Your task to perform on an android device: clear all cookies in the chrome app Image 0: 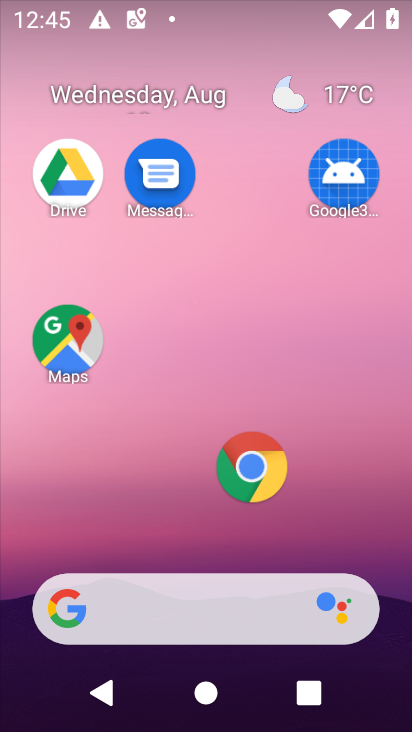
Step 0: click (263, 463)
Your task to perform on an android device: clear all cookies in the chrome app Image 1: 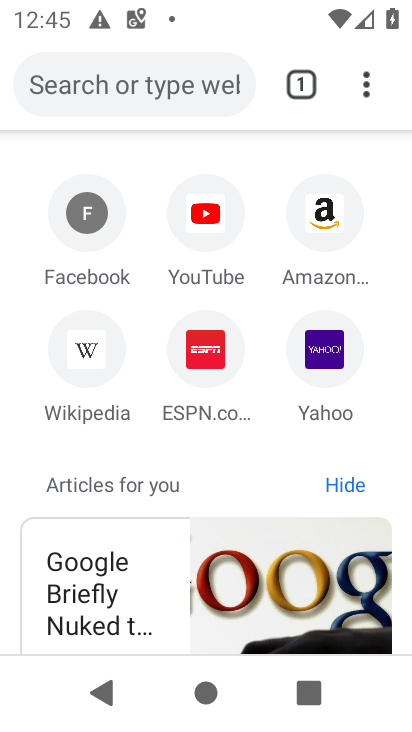
Step 1: click (387, 87)
Your task to perform on an android device: clear all cookies in the chrome app Image 2: 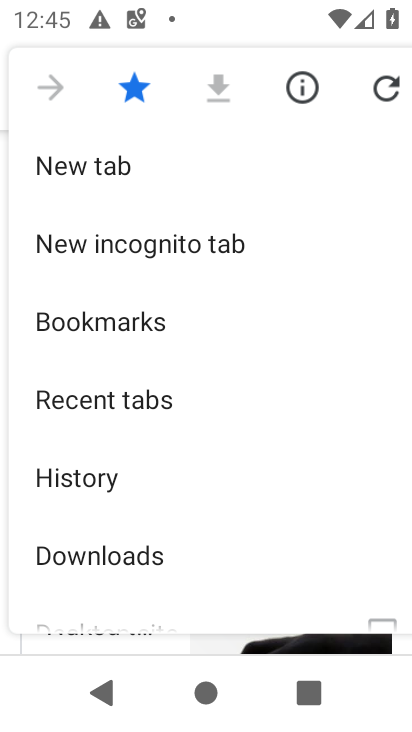
Step 2: click (160, 479)
Your task to perform on an android device: clear all cookies in the chrome app Image 3: 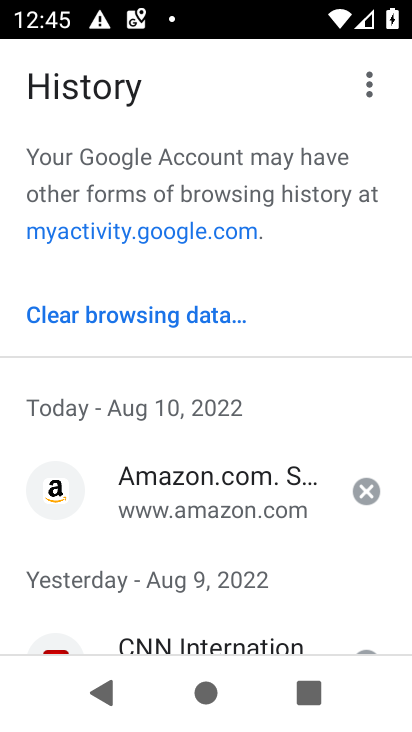
Step 3: click (194, 306)
Your task to perform on an android device: clear all cookies in the chrome app Image 4: 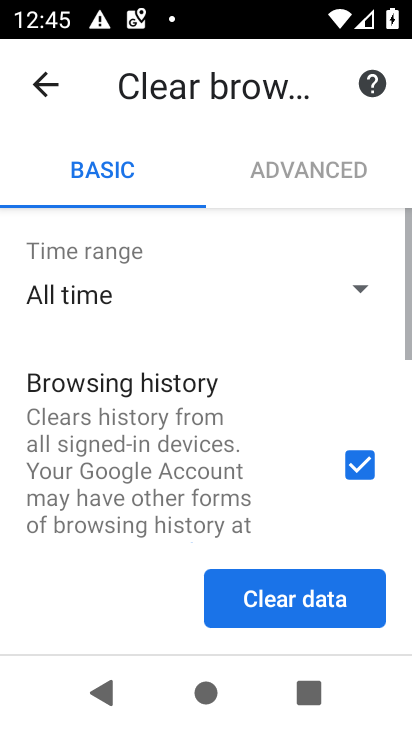
Step 4: click (195, 324)
Your task to perform on an android device: clear all cookies in the chrome app Image 5: 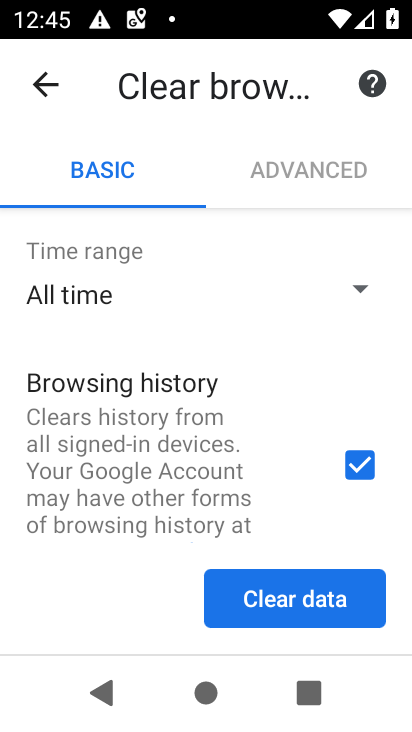
Step 5: click (361, 464)
Your task to perform on an android device: clear all cookies in the chrome app Image 6: 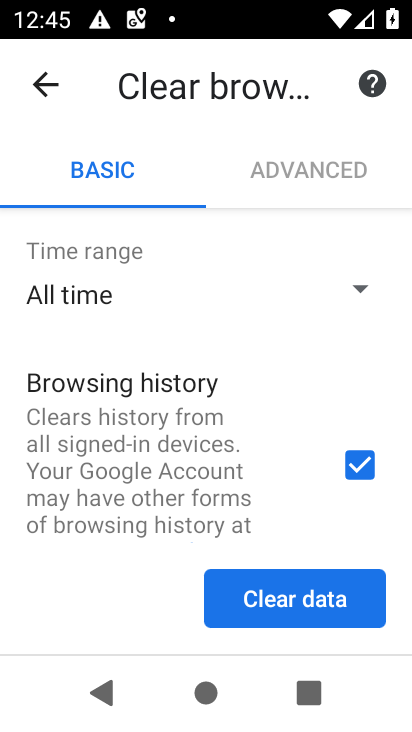
Step 6: drag from (156, 337) to (148, 166)
Your task to perform on an android device: clear all cookies in the chrome app Image 7: 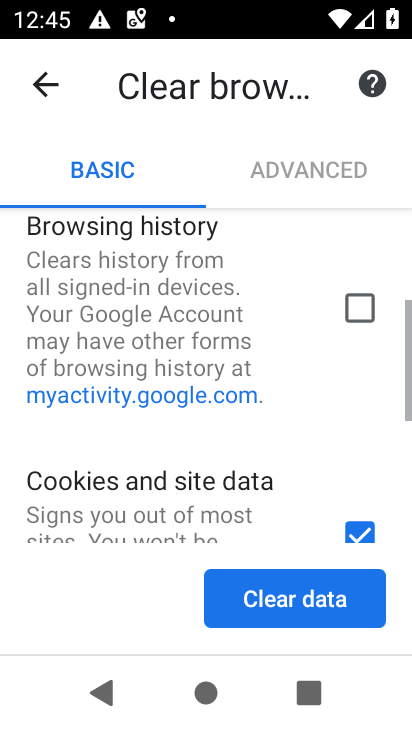
Step 7: drag from (178, 238) to (159, 99)
Your task to perform on an android device: clear all cookies in the chrome app Image 8: 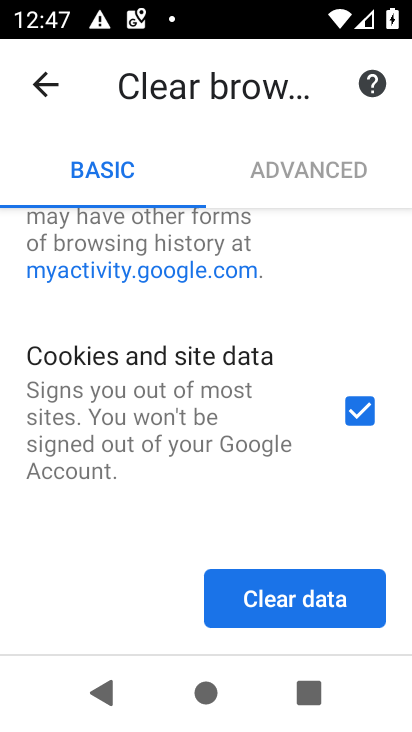
Step 8: click (318, 589)
Your task to perform on an android device: clear all cookies in the chrome app Image 9: 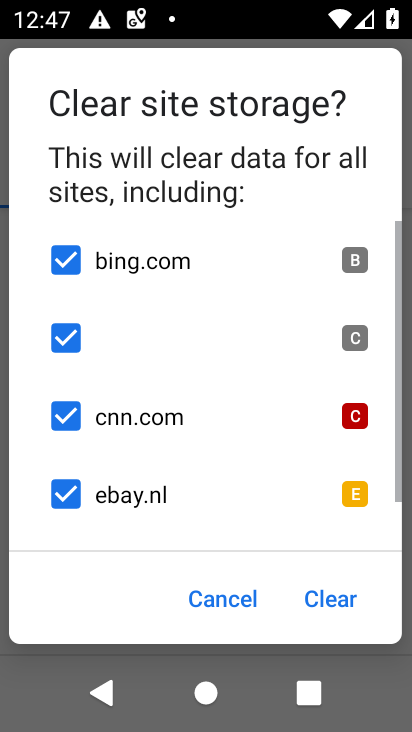
Step 9: click (318, 589)
Your task to perform on an android device: clear all cookies in the chrome app Image 10: 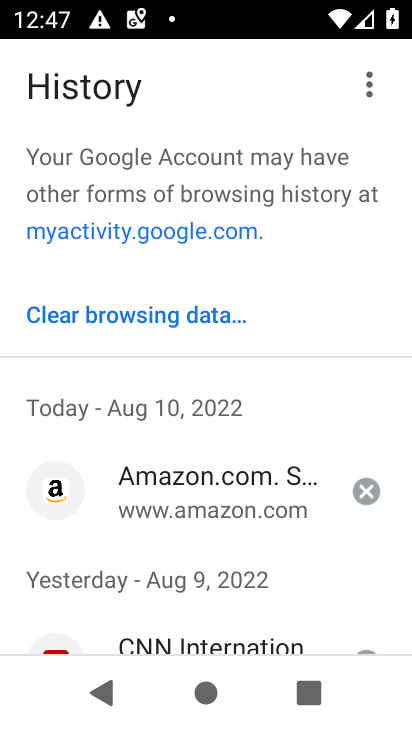
Step 10: click (172, 327)
Your task to perform on an android device: clear all cookies in the chrome app Image 11: 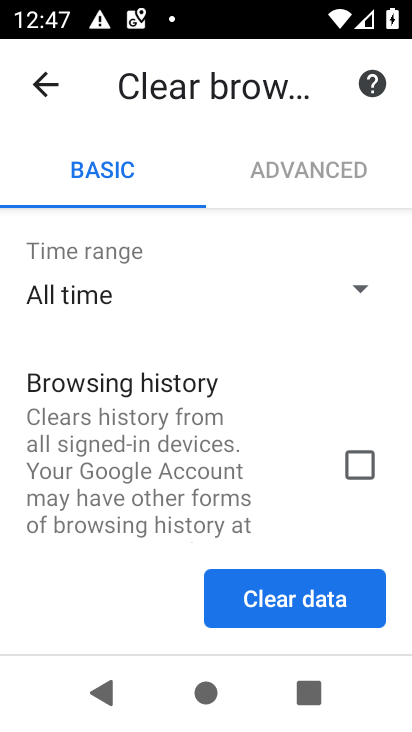
Step 11: drag from (239, 454) to (250, 102)
Your task to perform on an android device: clear all cookies in the chrome app Image 12: 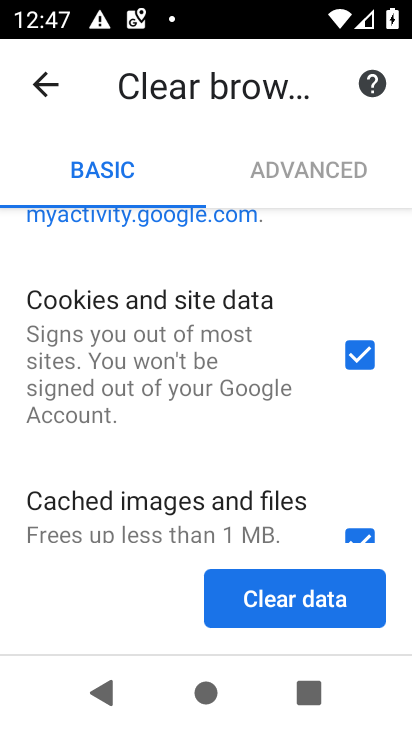
Step 12: click (357, 535)
Your task to perform on an android device: clear all cookies in the chrome app Image 13: 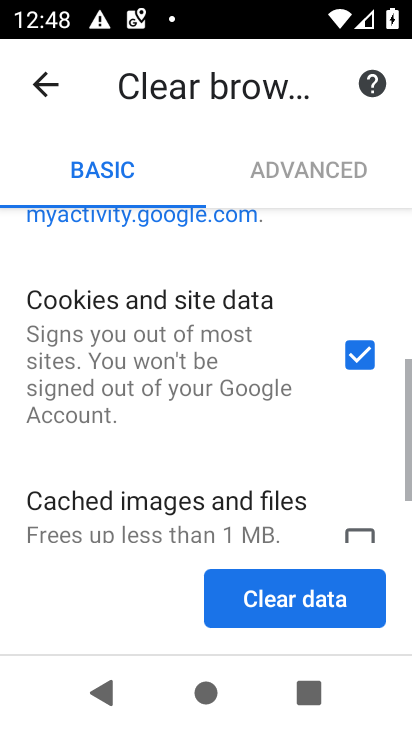
Step 13: click (290, 593)
Your task to perform on an android device: clear all cookies in the chrome app Image 14: 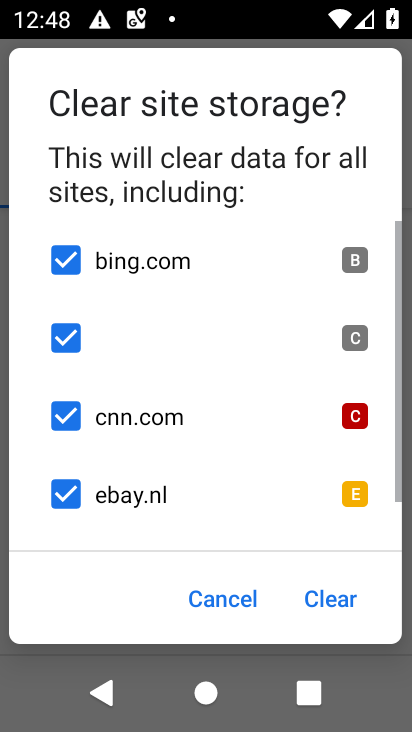
Step 14: click (317, 589)
Your task to perform on an android device: clear all cookies in the chrome app Image 15: 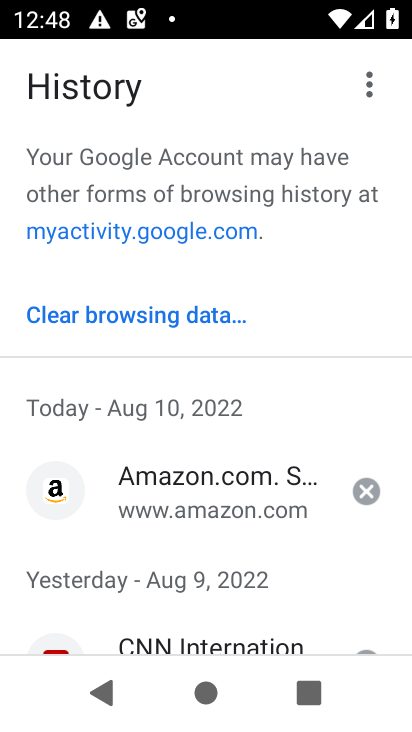
Step 15: task complete